Your task to perform on an android device: change the upload size in google photos Image 0: 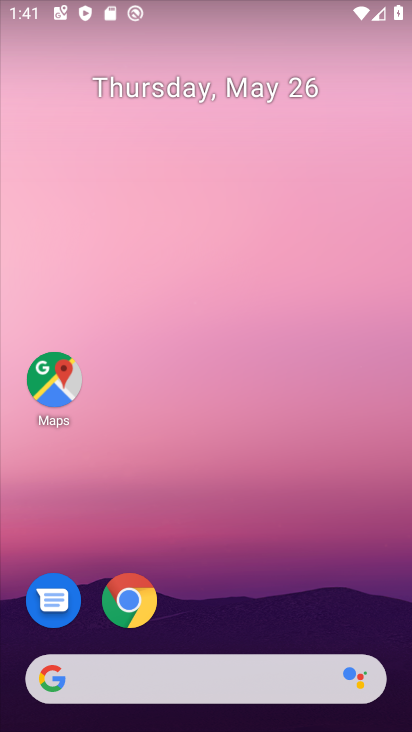
Step 0: drag from (218, 598) to (245, 254)
Your task to perform on an android device: change the upload size in google photos Image 1: 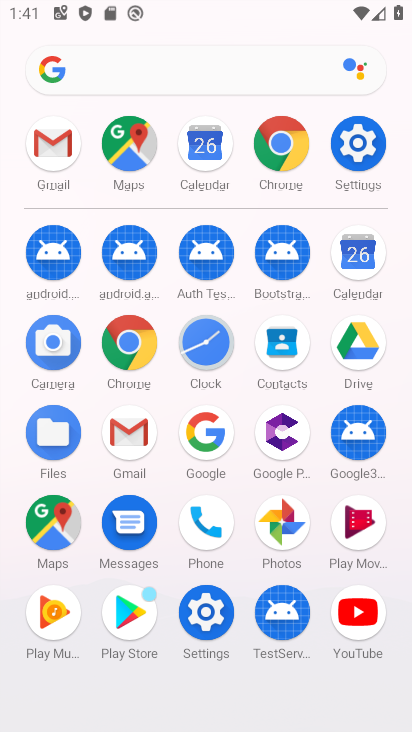
Step 1: click (270, 525)
Your task to perform on an android device: change the upload size in google photos Image 2: 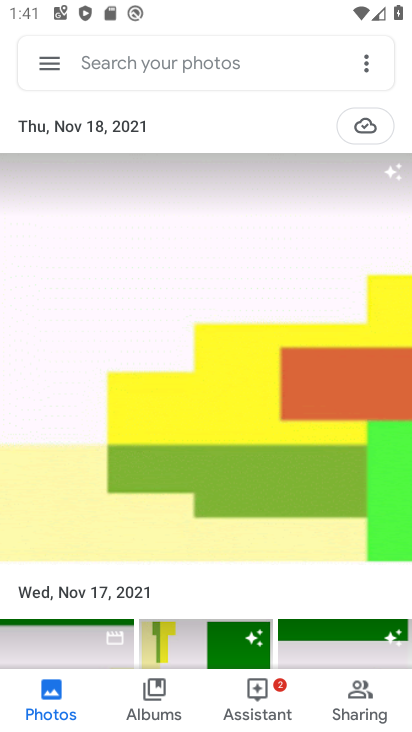
Step 2: click (54, 61)
Your task to perform on an android device: change the upload size in google photos Image 3: 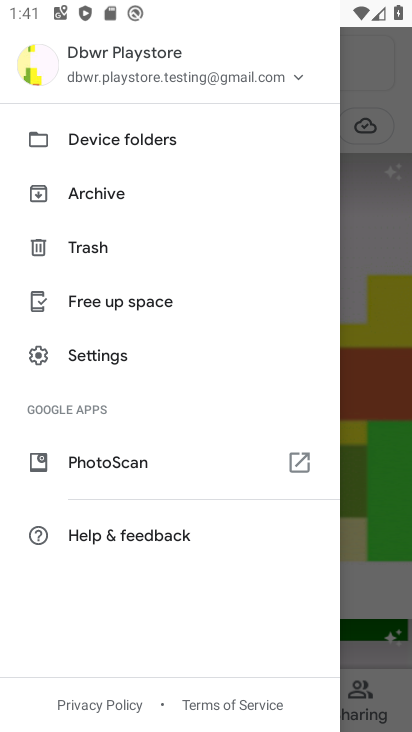
Step 3: click (113, 357)
Your task to perform on an android device: change the upload size in google photos Image 4: 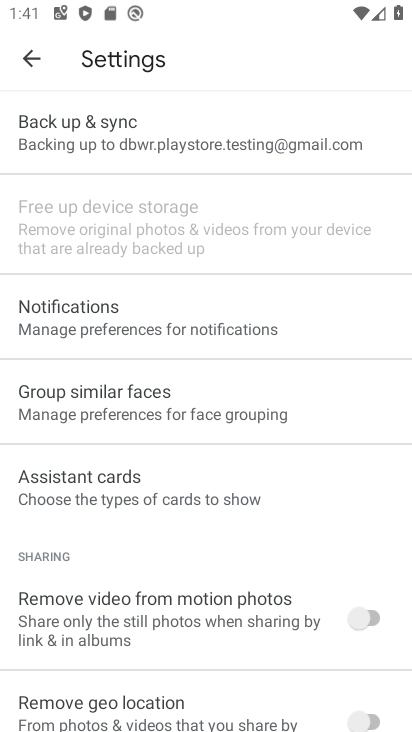
Step 4: drag from (146, 601) to (185, 220)
Your task to perform on an android device: change the upload size in google photos Image 5: 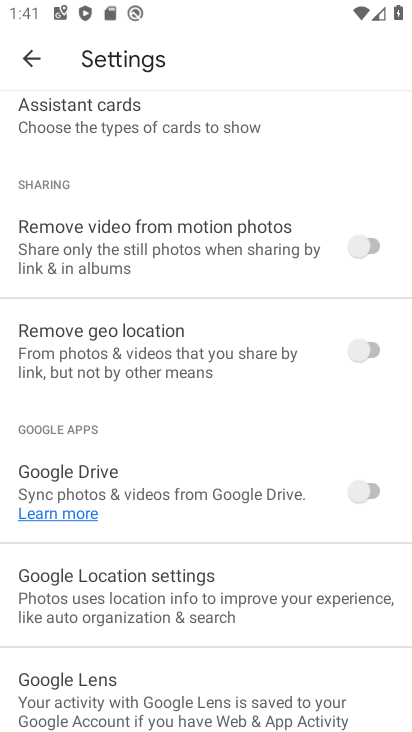
Step 5: drag from (98, 413) to (109, 173)
Your task to perform on an android device: change the upload size in google photos Image 6: 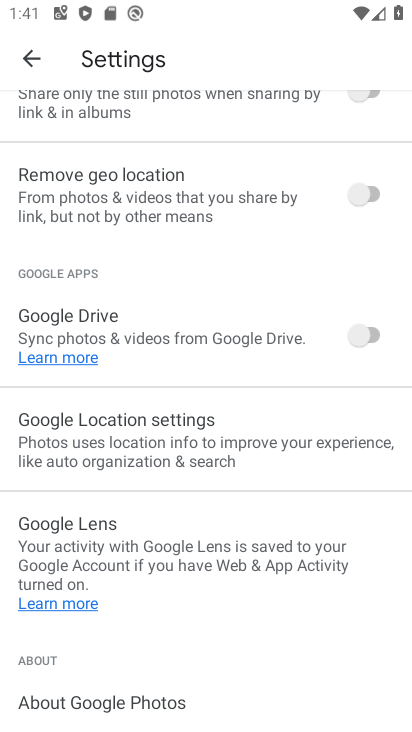
Step 6: drag from (68, 585) to (104, 252)
Your task to perform on an android device: change the upload size in google photos Image 7: 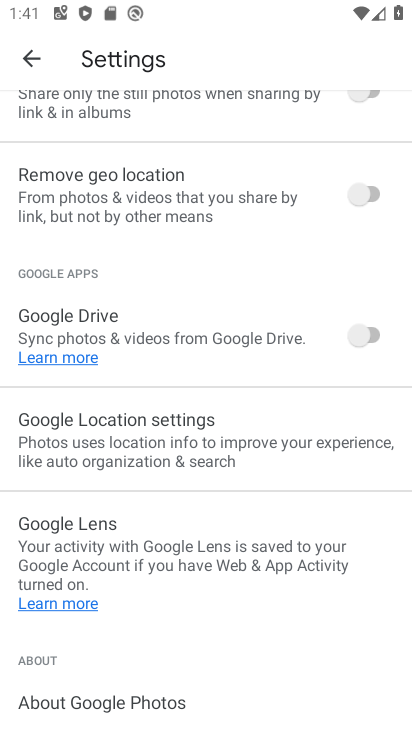
Step 7: click (130, 699)
Your task to perform on an android device: change the upload size in google photos Image 8: 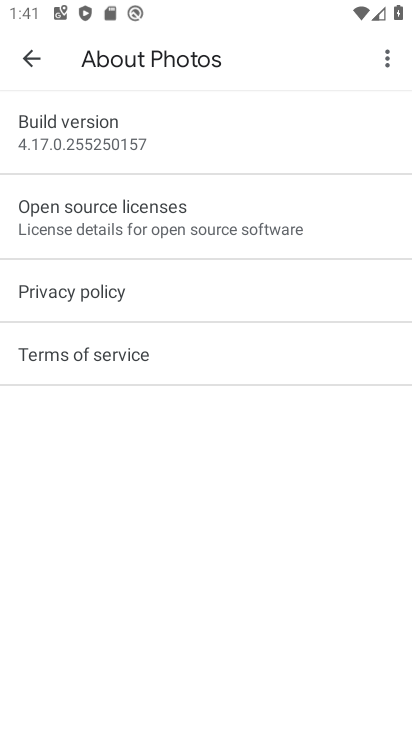
Step 8: task complete